Your task to perform on an android device: Search for sushi restaurants on Maps Image 0: 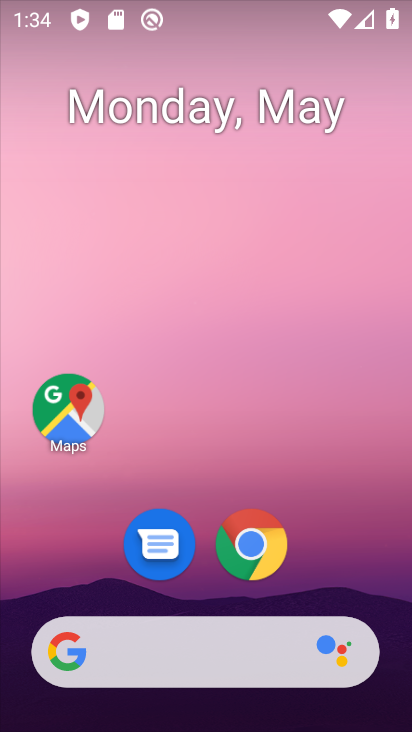
Step 0: drag from (375, 587) to (368, 183)
Your task to perform on an android device: Search for sushi restaurants on Maps Image 1: 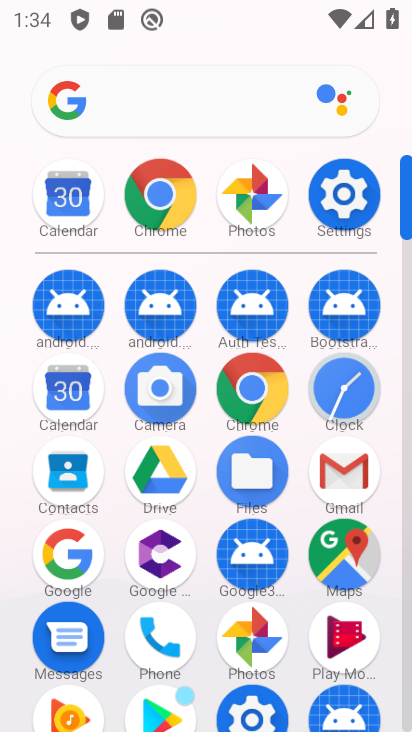
Step 1: click (367, 556)
Your task to perform on an android device: Search for sushi restaurants on Maps Image 2: 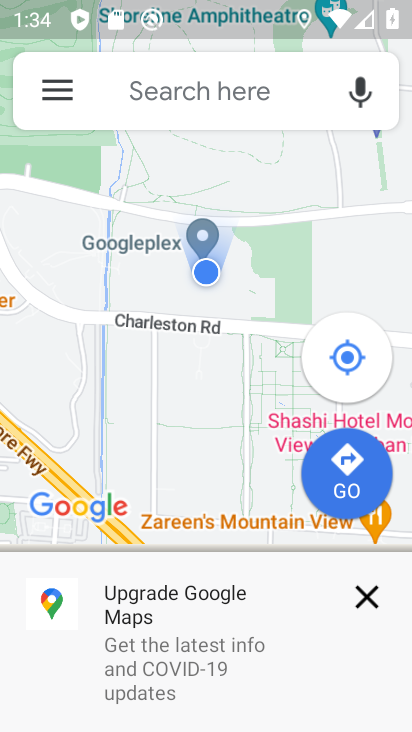
Step 2: click (252, 92)
Your task to perform on an android device: Search for sushi restaurants on Maps Image 3: 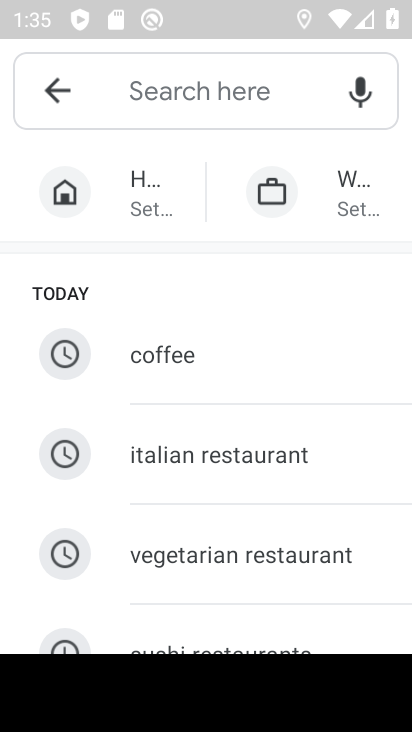
Step 3: type "sushi restaurfants"
Your task to perform on an android device: Search for sushi restaurants on Maps Image 4: 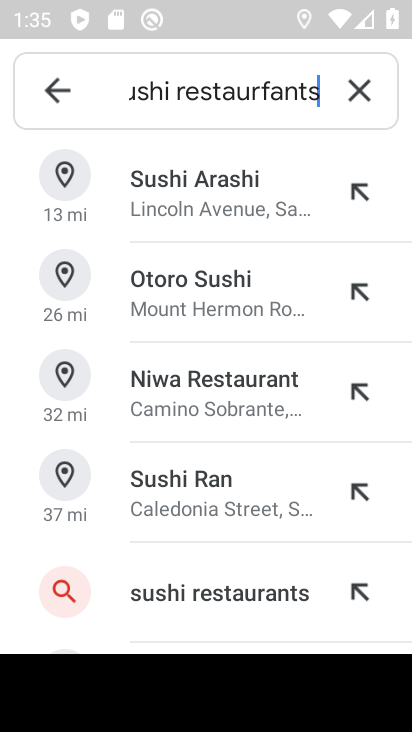
Step 4: click (227, 593)
Your task to perform on an android device: Search for sushi restaurants on Maps Image 5: 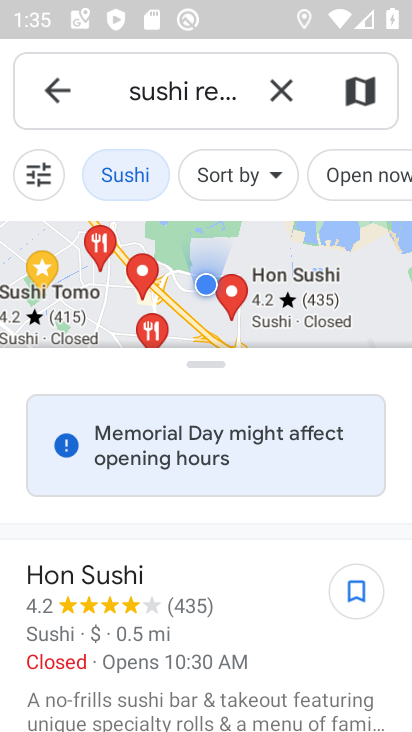
Step 5: task complete